Your task to perform on an android device: Find coffee shops on Maps Image 0: 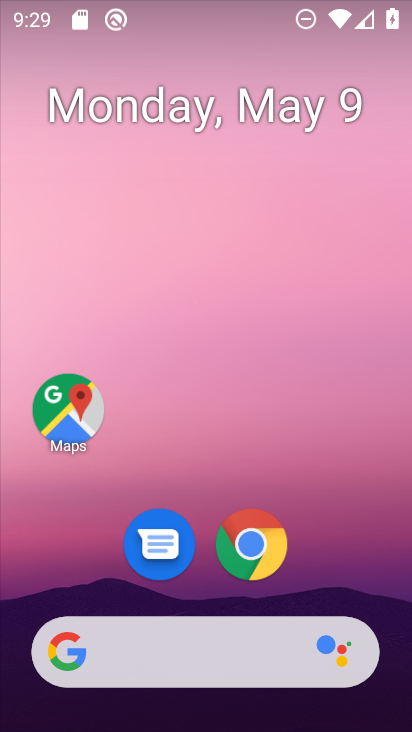
Step 0: click (63, 415)
Your task to perform on an android device: Find coffee shops on Maps Image 1: 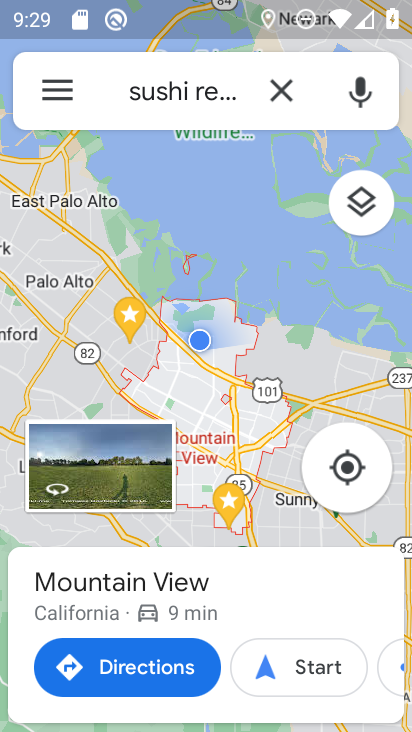
Step 1: click (285, 92)
Your task to perform on an android device: Find coffee shops on Maps Image 2: 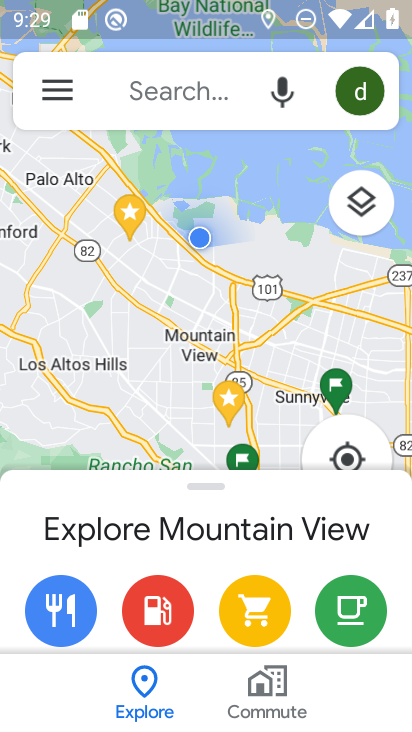
Step 2: click (180, 97)
Your task to perform on an android device: Find coffee shops on Maps Image 3: 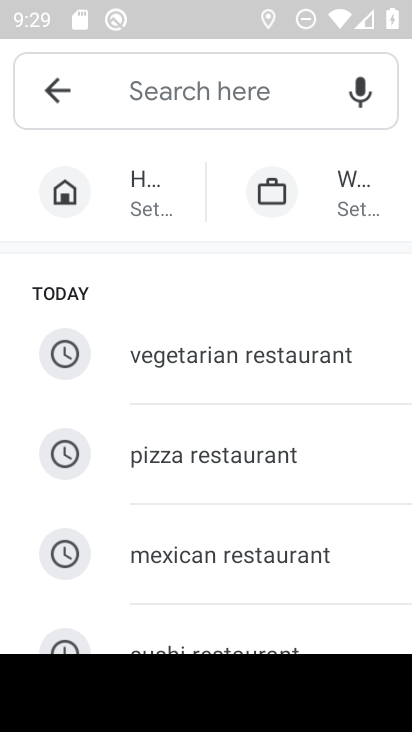
Step 3: type "coffee shop"
Your task to perform on an android device: Find coffee shops on Maps Image 4: 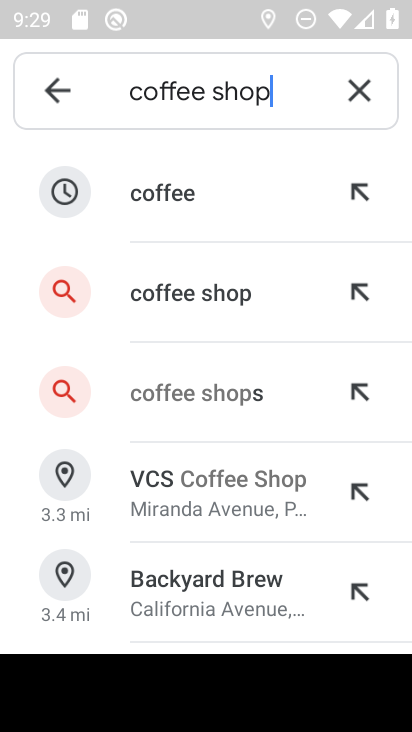
Step 4: click (191, 289)
Your task to perform on an android device: Find coffee shops on Maps Image 5: 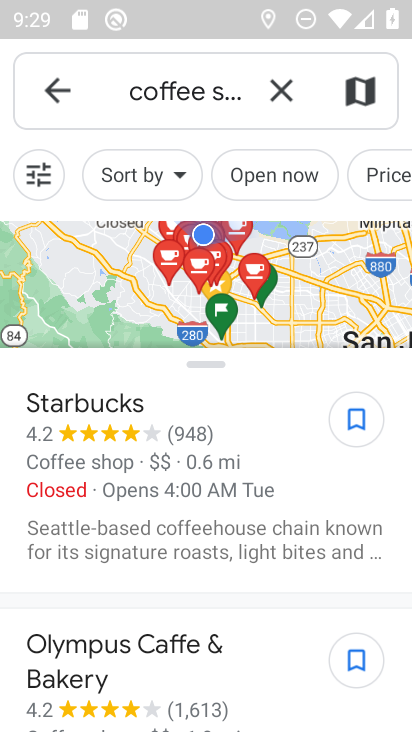
Step 5: task complete